Your task to perform on an android device: Go to battery settings Image 0: 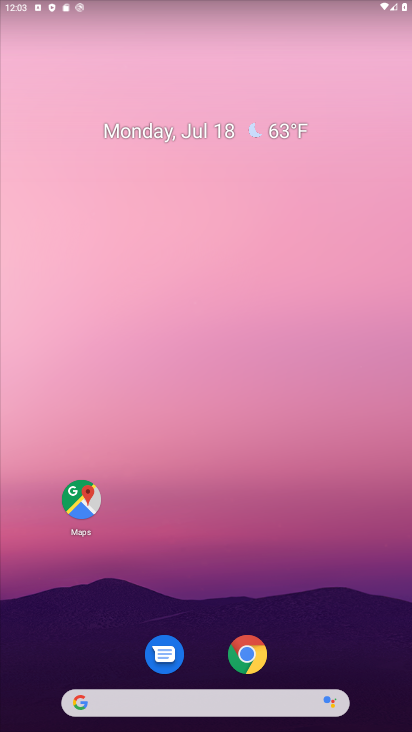
Step 0: drag from (197, 639) to (194, 145)
Your task to perform on an android device: Go to battery settings Image 1: 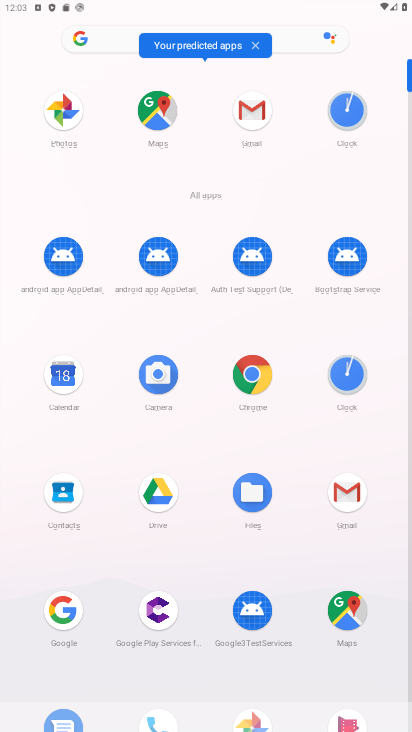
Step 1: drag from (201, 613) to (217, 369)
Your task to perform on an android device: Go to battery settings Image 2: 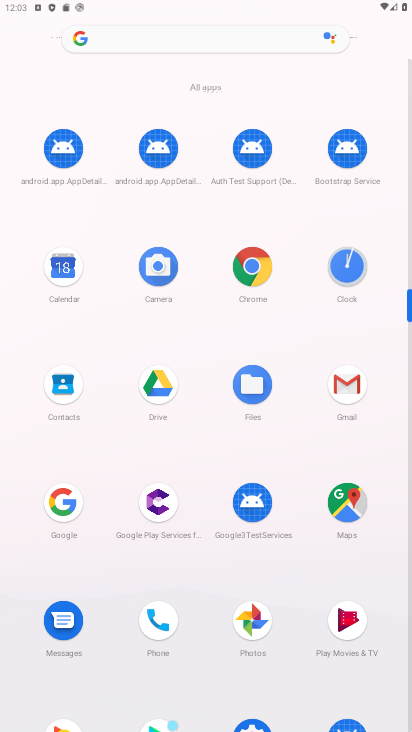
Step 2: drag from (218, 574) to (206, 346)
Your task to perform on an android device: Go to battery settings Image 3: 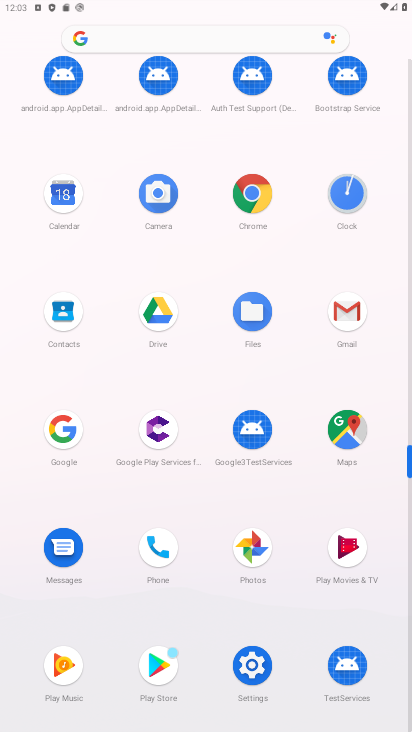
Step 3: click (245, 641)
Your task to perform on an android device: Go to battery settings Image 4: 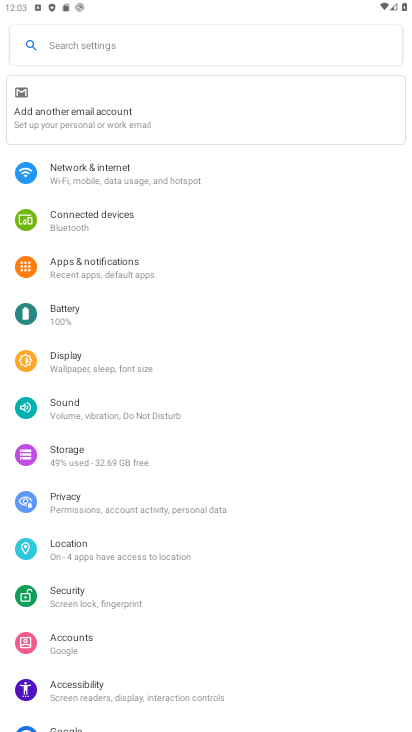
Step 4: click (94, 318)
Your task to perform on an android device: Go to battery settings Image 5: 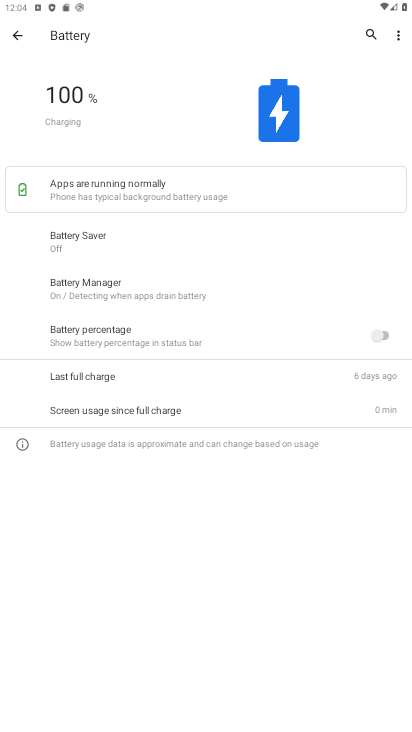
Step 5: task complete